Your task to perform on an android device: What's the weather today? Image 0: 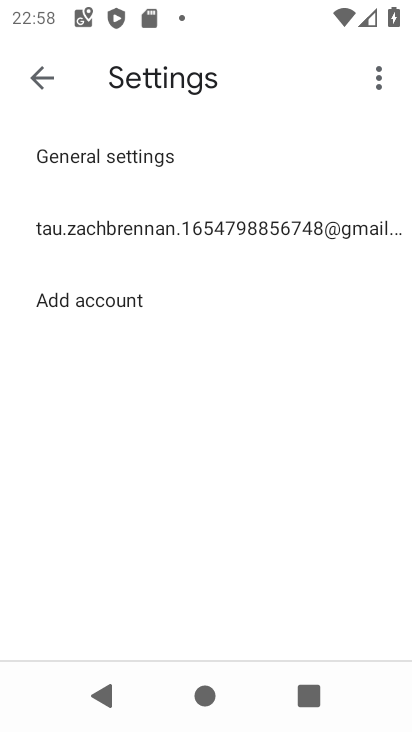
Step 0: press home button
Your task to perform on an android device: What's the weather today? Image 1: 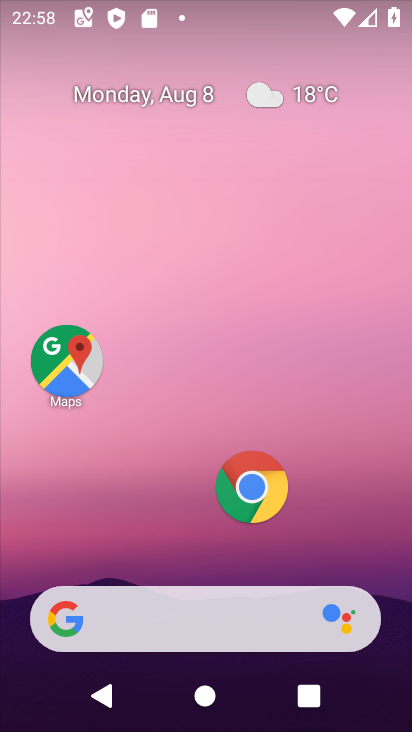
Step 1: drag from (196, 571) to (191, 34)
Your task to perform on an android device: What's the weather today? Image 2: 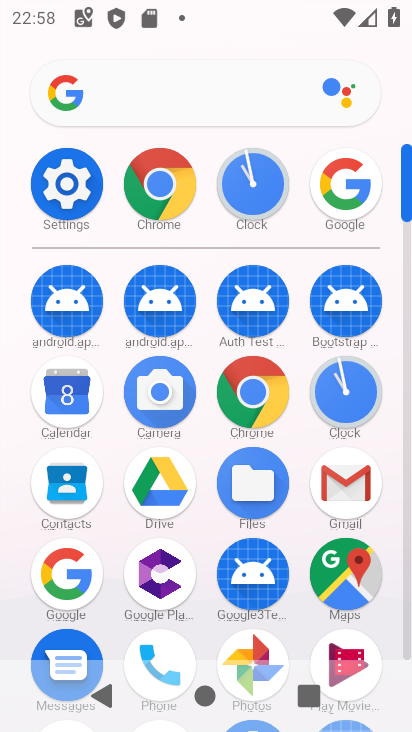
Step 2: click (69, 571)
Your task to perform on an android device: What's the weather today? Image 3: 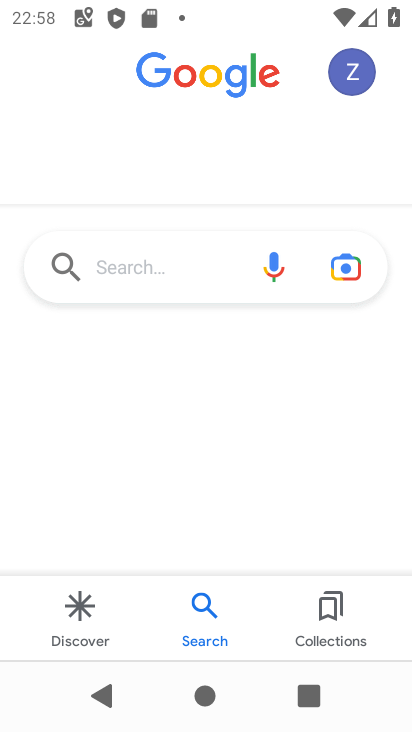
Step 3: click (145, 277)
Your task to perform on an android device: What's the weather today? Image 4: 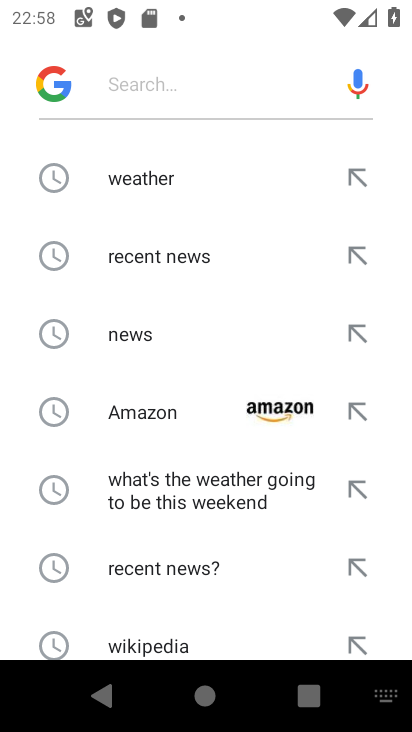
Step 4: click (126, 182)
Your task to perform on an android device: What's the weather today? Image 5: 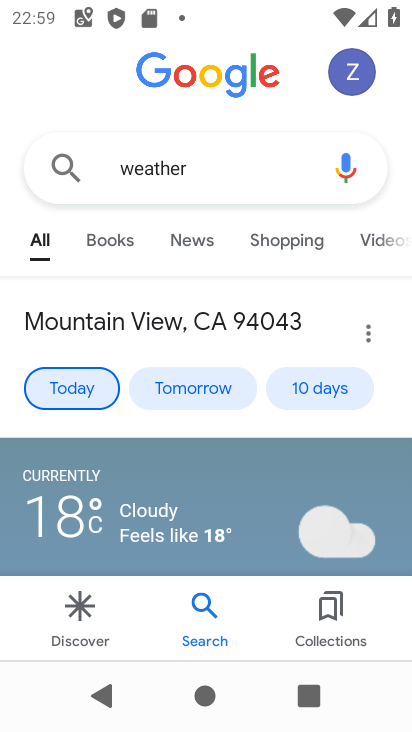
Step 5: click (74, 386)
Your task to perform on an android device: What's the weather today? Image 6: 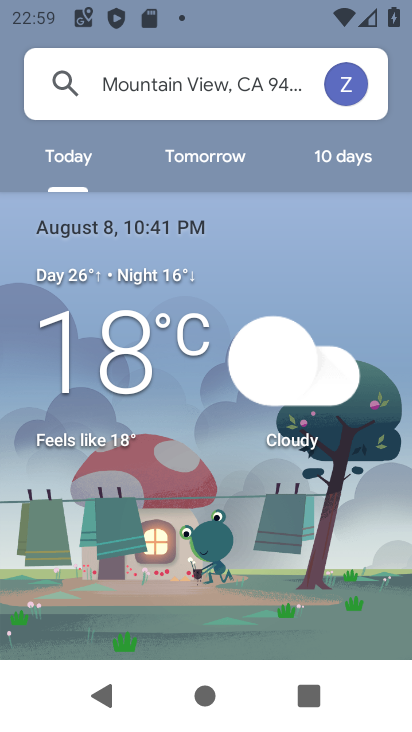
Step 6: task complete